Your task to perform on an android device: open app "Clock" Image 0: 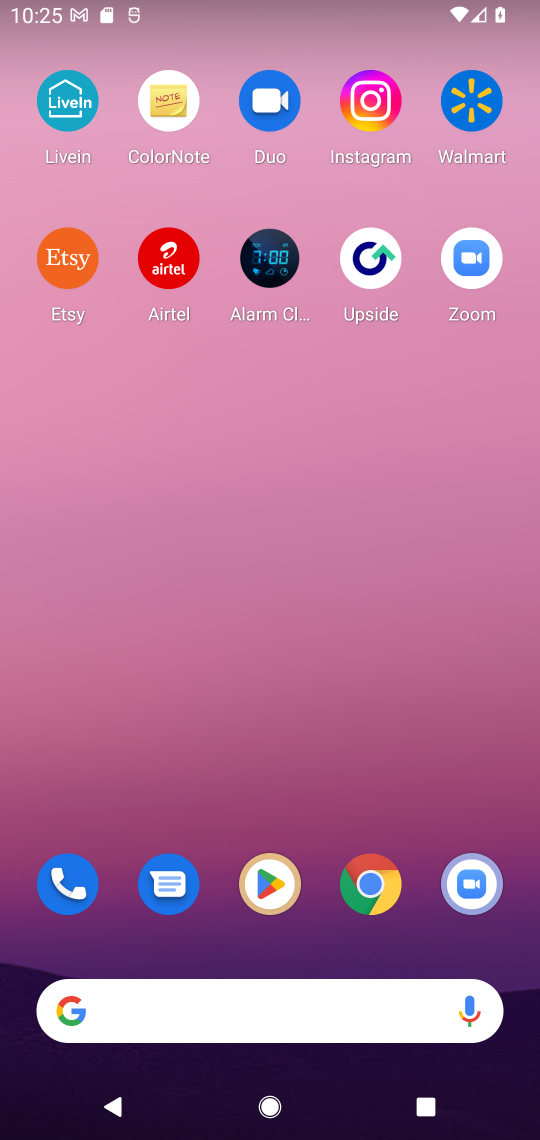
Step 0: click (269, 874)
Your task to perform on an android device: open app "Clock" Image 1: 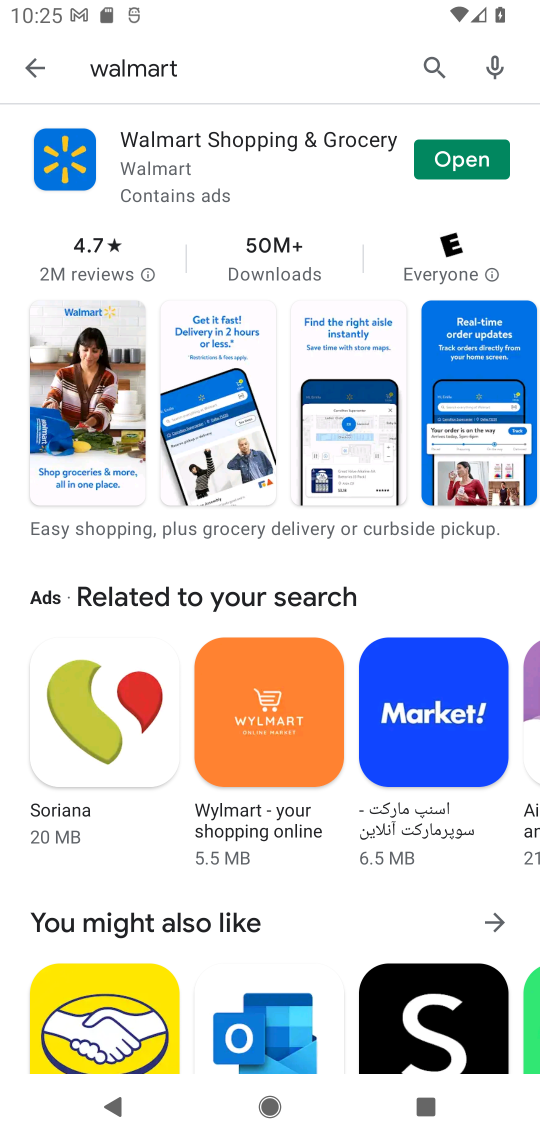
Step 1: click (440, 58)
Your task to perform on an android device: open app "Clock" Image 2: 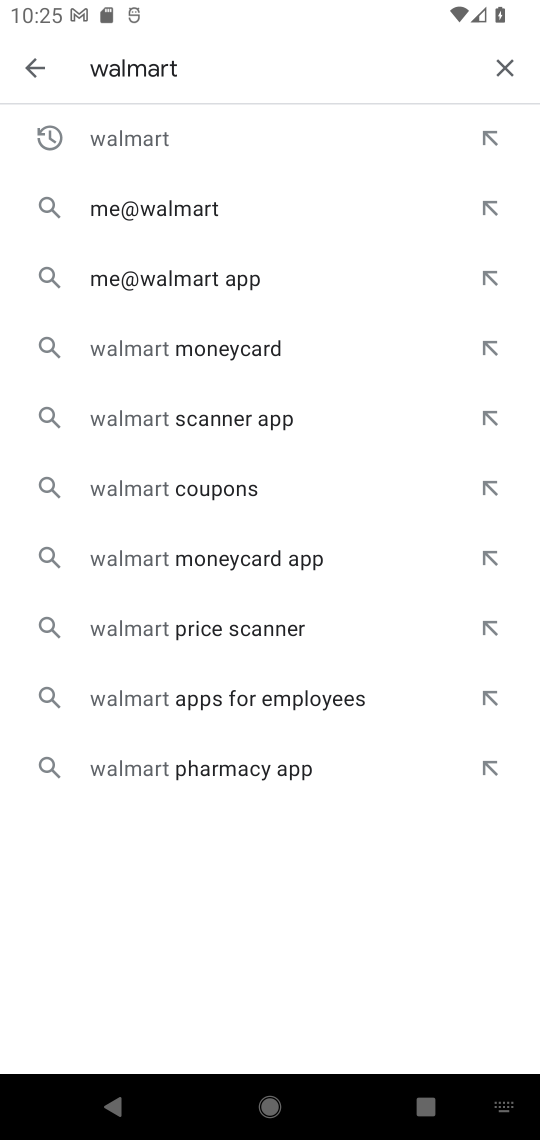
Step 2: click (489, 55)
Your task to perform on an android device: open app "Clock" Image 3: 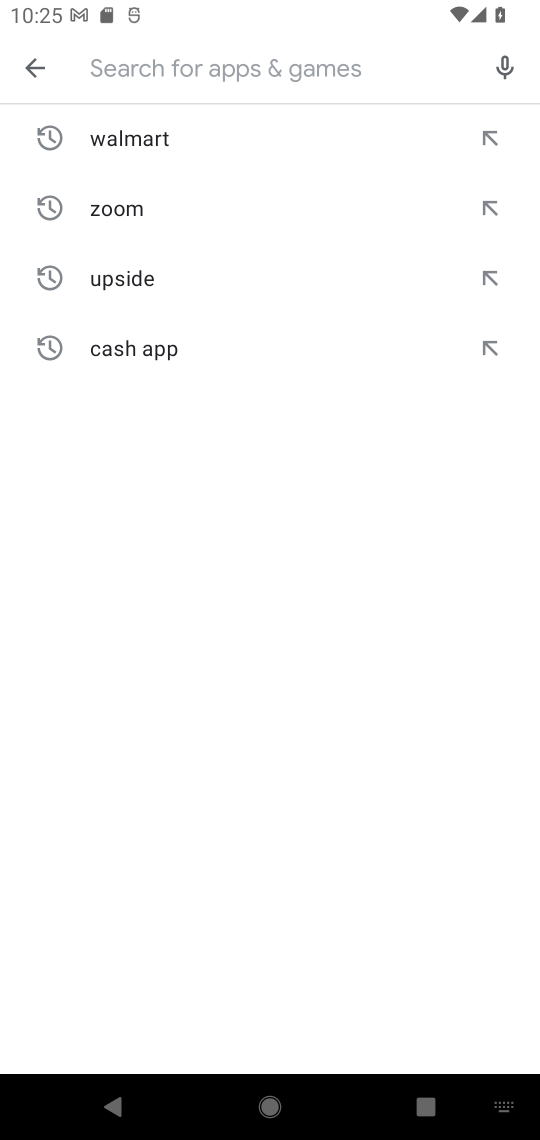
Step 3: type "clock"
Your task to perform on an android device: open app "Clock" Image 4: 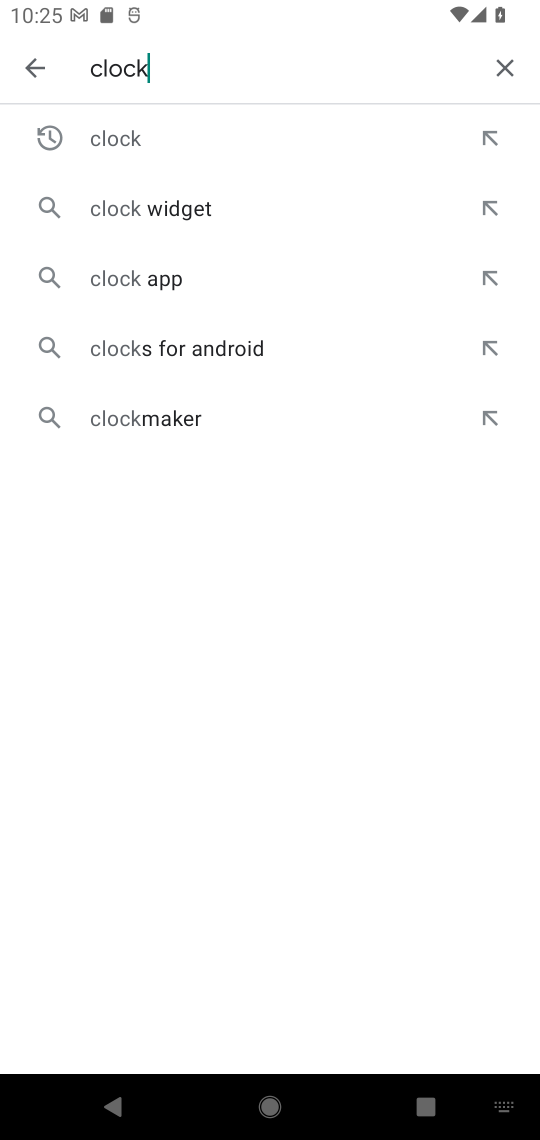
Step 4: click (173, 128)
Your task to perform on an android device: open app "Clock" Image 5: 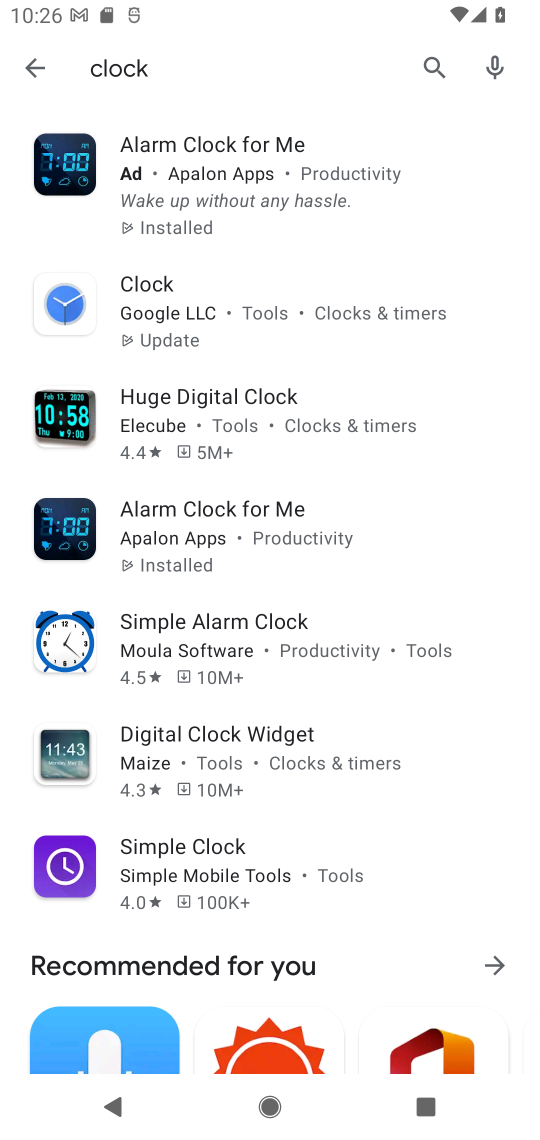
Step 5: click (281, 296)
Your task to perform on an android device: open app "Clock" Image 6: 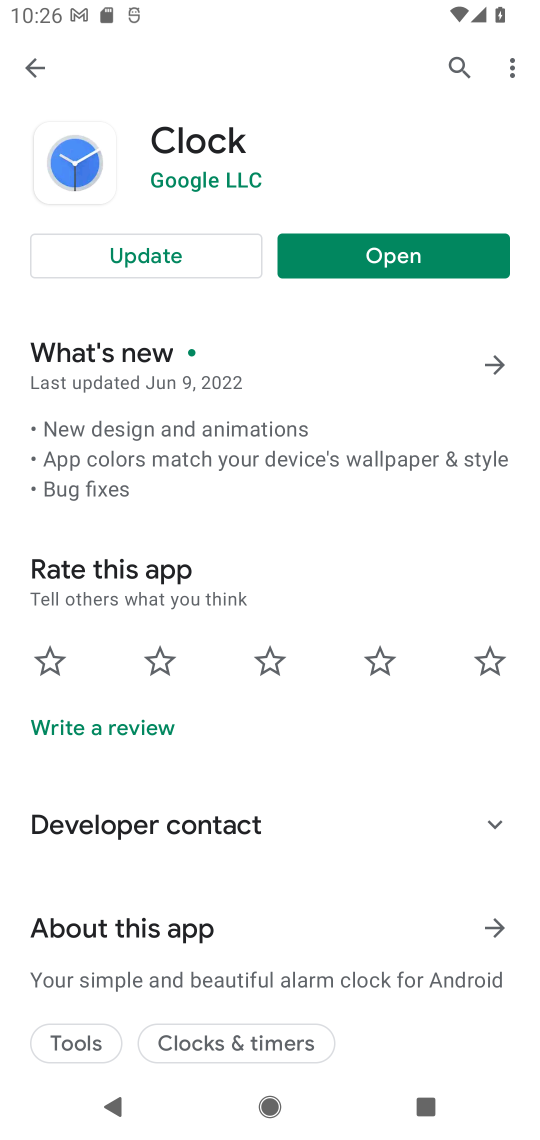
Step 6: click (355, 256)
Your task to perform on an android device: open app "Clock" Image 7: 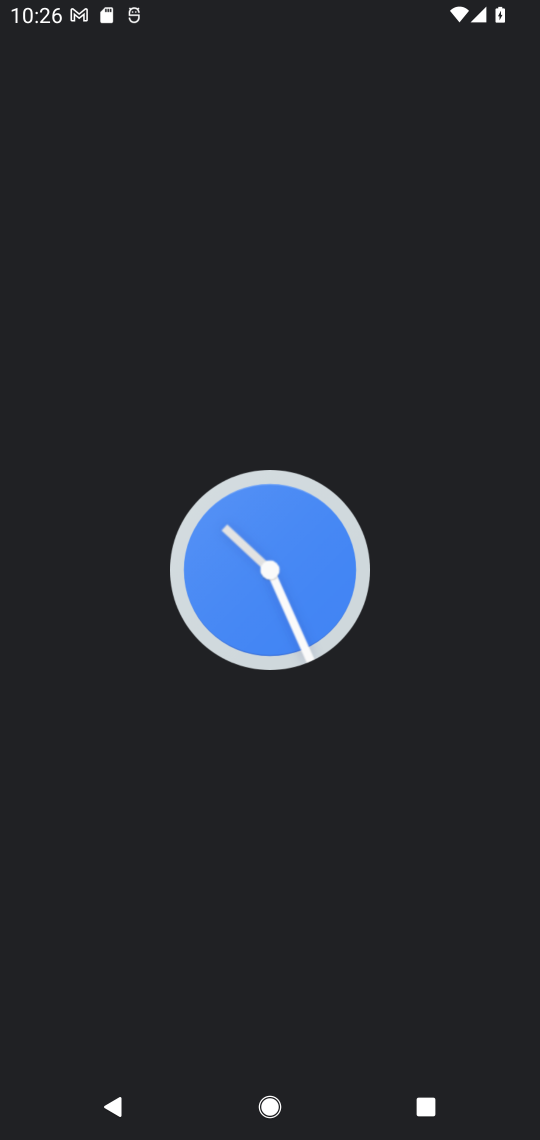
Step 7: task complete